Your task to perform on an android device: check google app version Image 0: 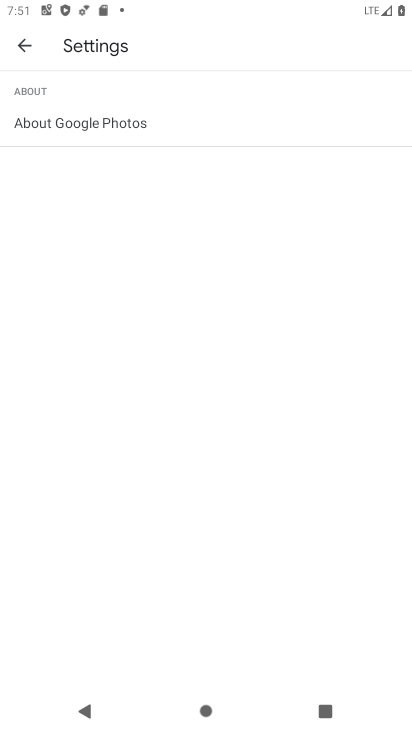
Step 0: press back button
Your task to perform on an android device: check google app version Image 1: 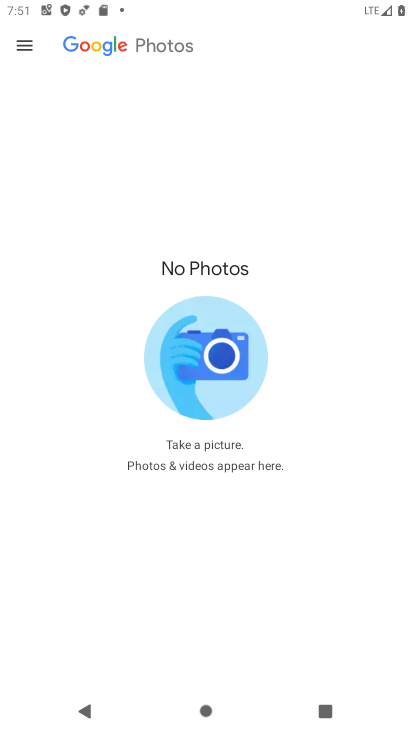
Step 1: press back button
Your task to perform on an android device: check google app version Image 2: 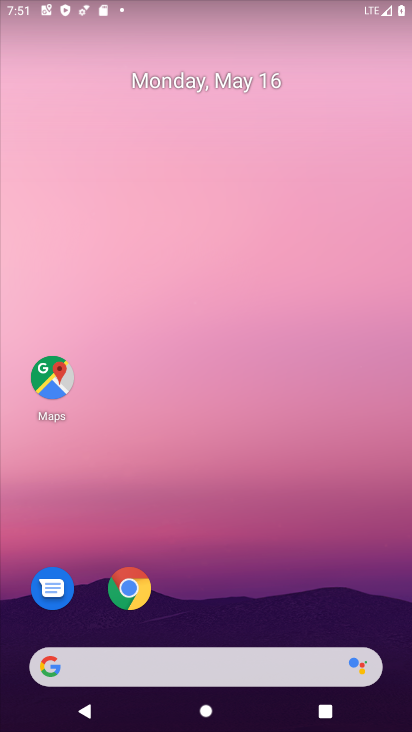
Step 2: drag from (287, 529) to (231, 6)
Your task to perform on an android device: check google app version Image 3: 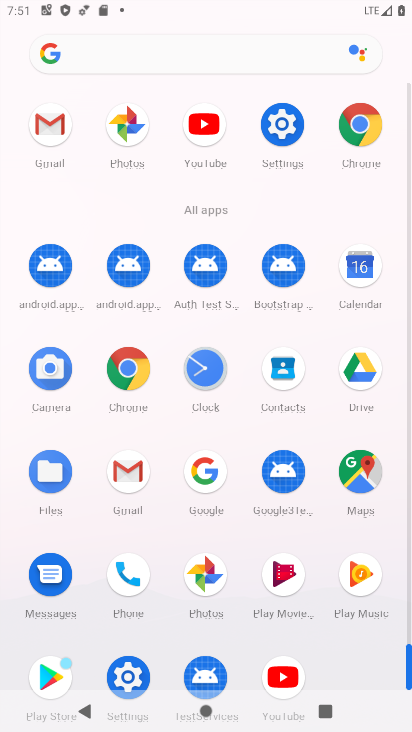
Step 3: click (205, 469)
Your task to perform on an android device: check google app version Image 4: 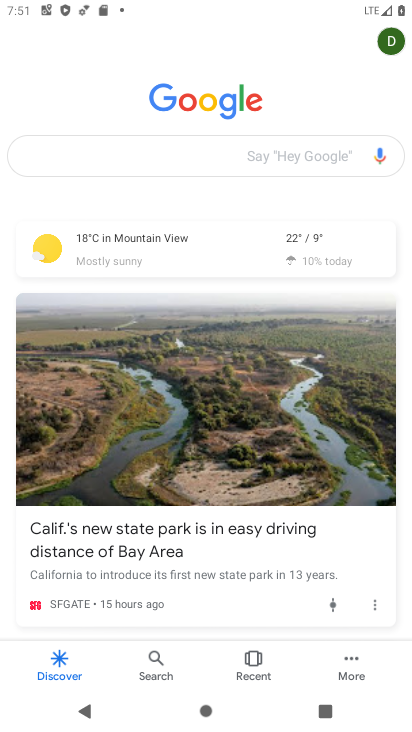
Step 4: drag from (349, 651) to (357, 442)
Your task to perform on an android device: check google app version Image 5: 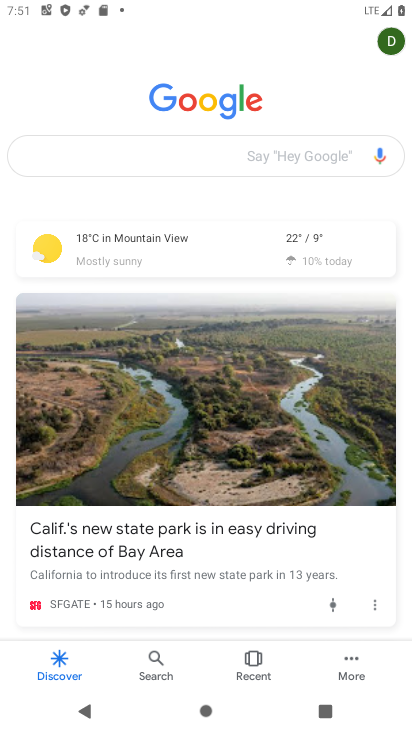
Step 5: click (346, 657)
Your task to perform on an android device: check google app version Image 6: 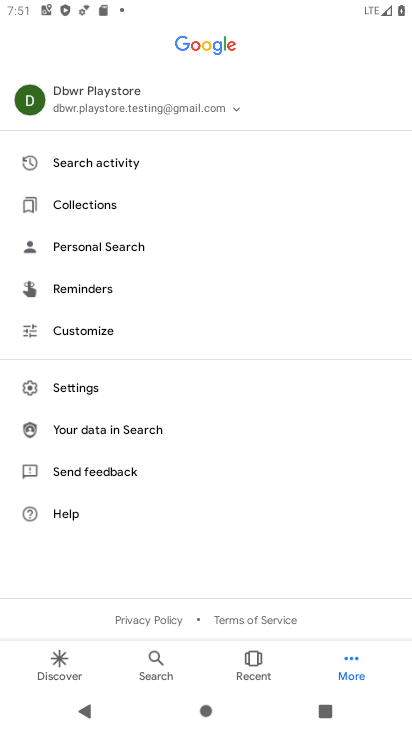
Step 6: click (349, 658)
Your task to perform on an android device: check google app version Image 7: 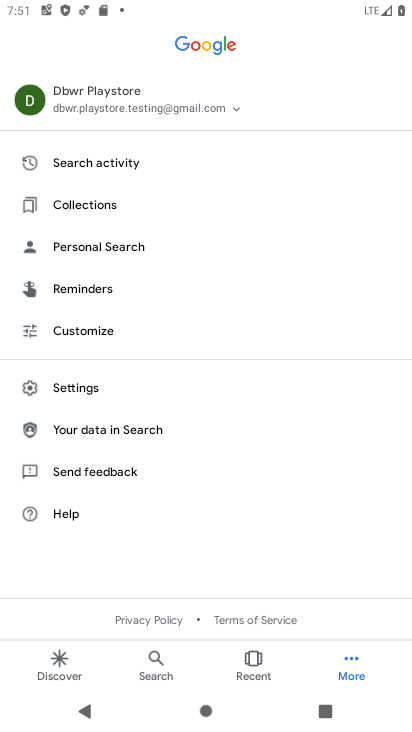
Step 7: click (93, 383)
Your task to perform on an android device: check google app version Image 8: 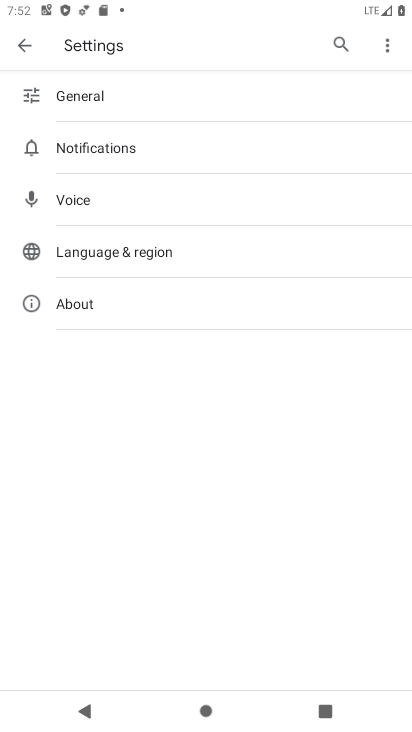
Step 8: click (114, 303)
Your task to perform on an android device: check google app version Image 9: 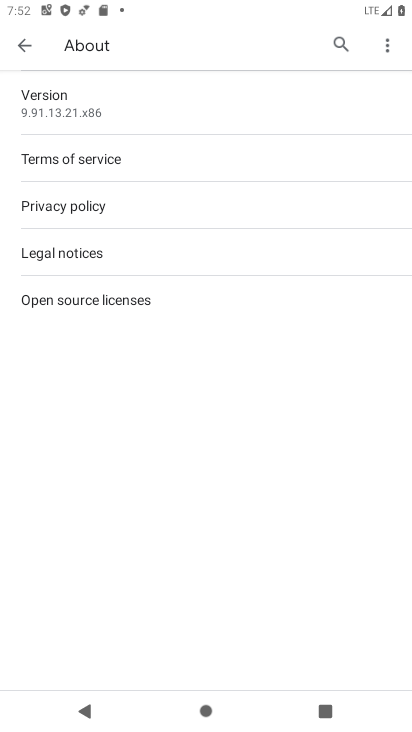
Step 9: task complete